Your task to perform on an android device: turn off improve location accuracy Image 0: 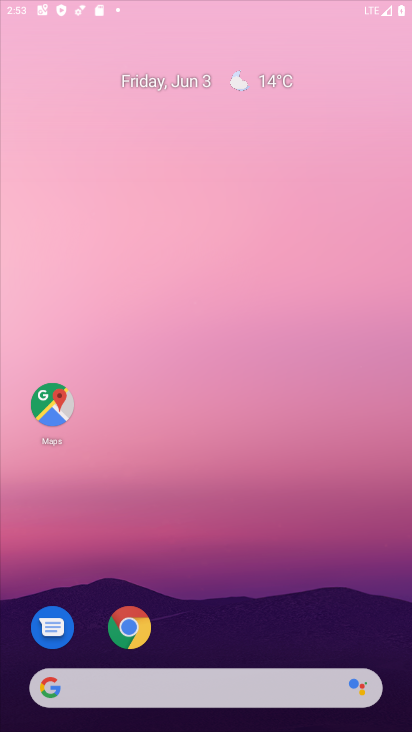
Step 0: click (244, 358)
Your task to perform on an android device: turn off improve location accuracy Image 1: 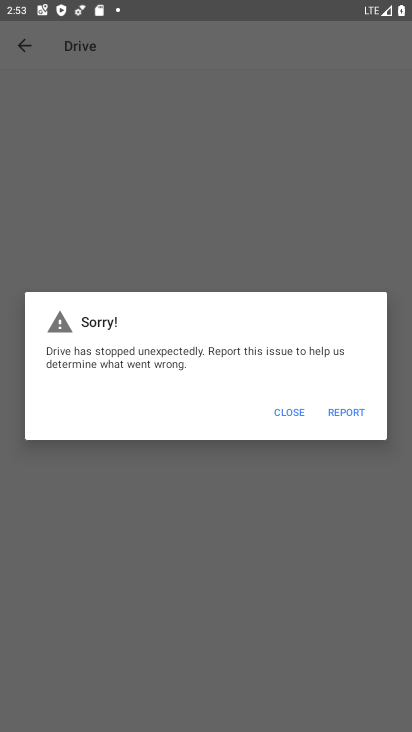
Step 1: press home button
Your task to perform on an android device: turn off improve location accuracy Image 2: 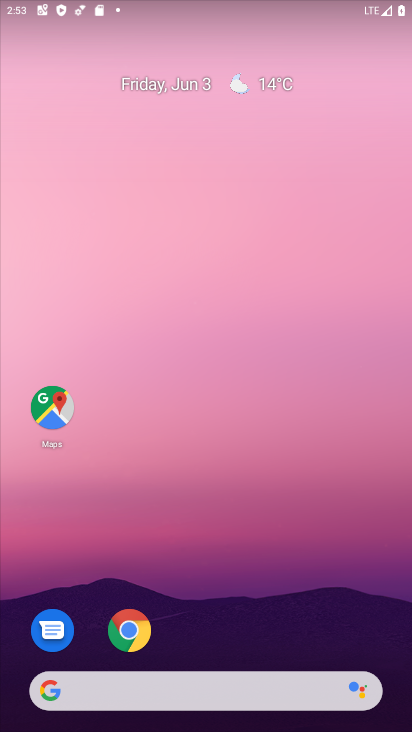
Step 2: click (178, 176)
Your task to perform on an android device: turn off improve location accuracy Image 3: 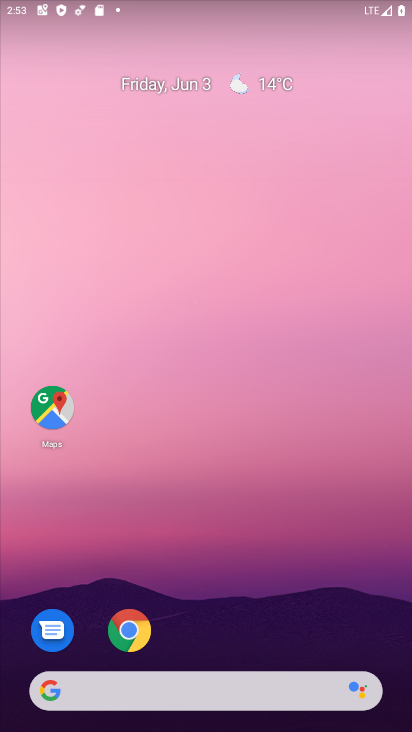
Step 3: drag from (276, 631) to (211, 185)
Your task to perform on an android device: turn off improve location accuracy Image 4: 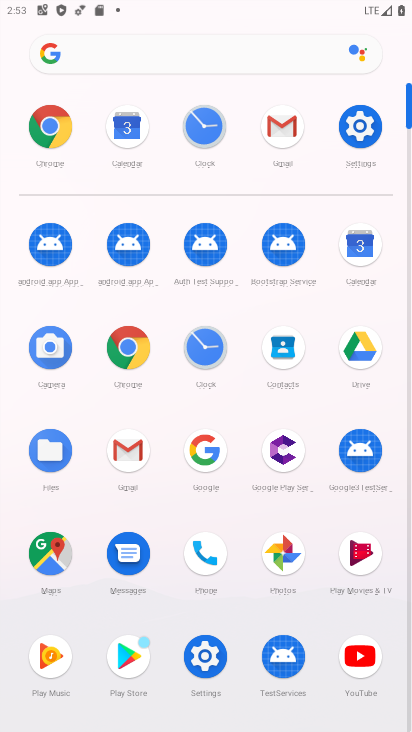
Step 4: click (369, 123)
Your task to perform on an android device: turn off improve location accuracy Image 5: 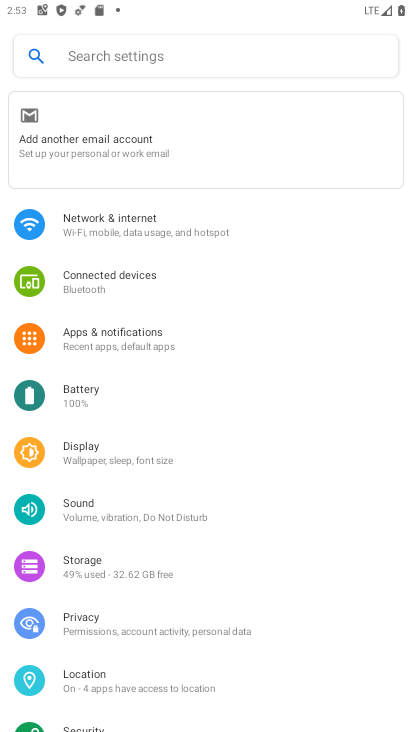
Step 5: click (145, 684)
Your task to perform on an android device: turn off improve location accuracy Image 6: 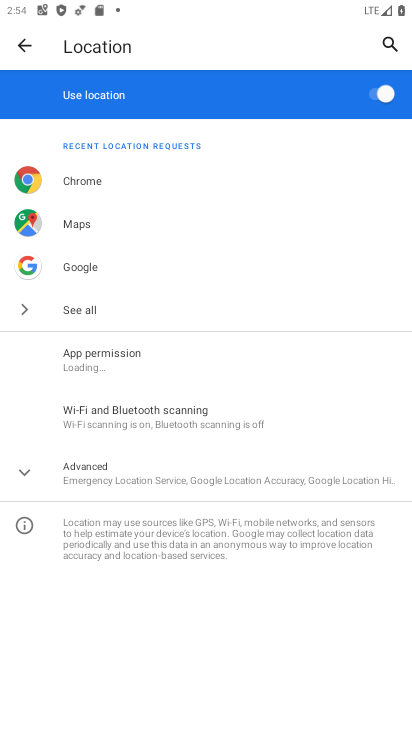
Step 6: click (235, 481)
Your task to perform on an android device: turn off improve location accuracy Image 7: 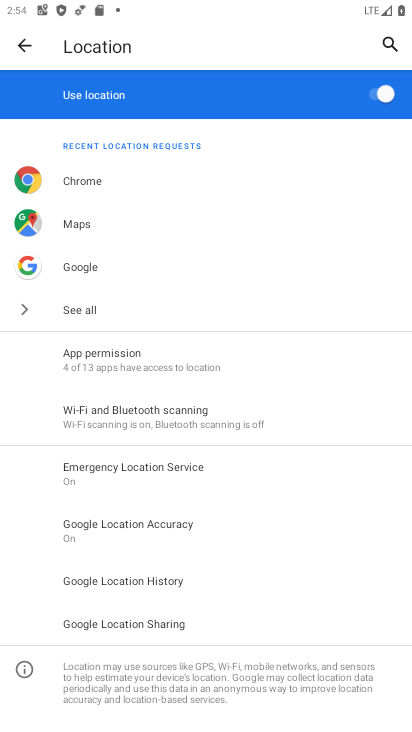
Step 7: click (233, 522)
Your task to perform on an android device: turn off improve location accuracy Image 8: 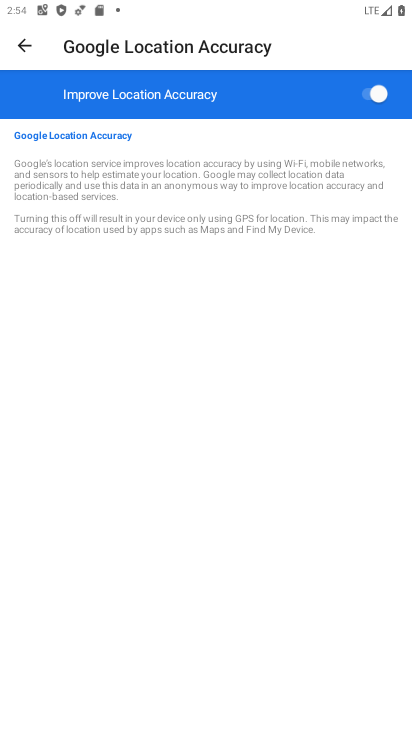
Step 8: click (374, 97)
Your task to perform on an android device: turn off improve location accuracy Image 9: 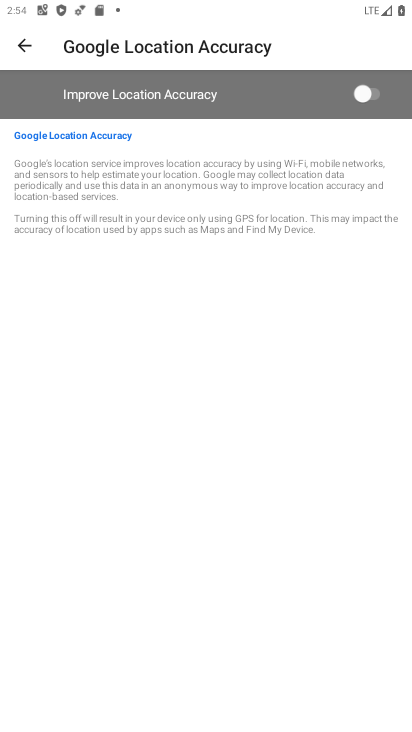
Step 9: task complete